Your task to perform on an android device: turn off smart reply in the gmail app Image 0: 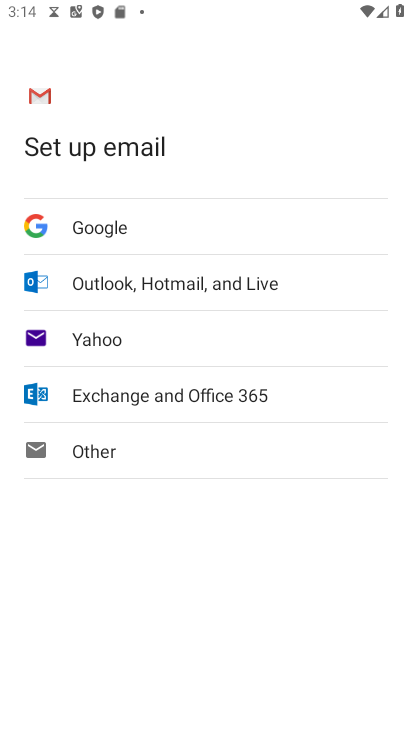
Step 0: click (280, 563)
Your task to perform on an android device: turn off smart reply in the gmail app Image 1: 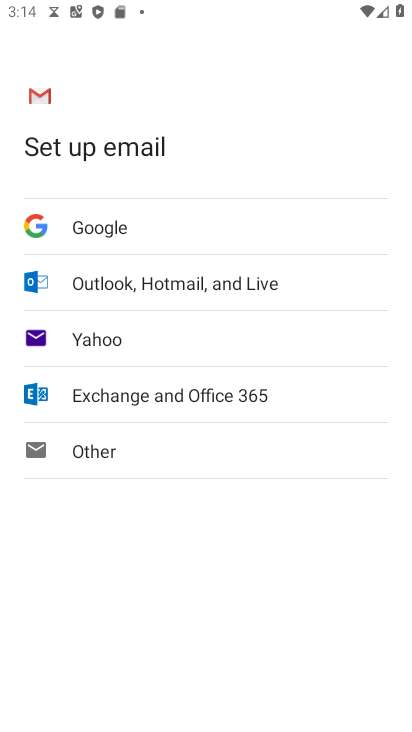
Step 1: press home button
Your task to perform on an android device: turn off smart reply in the gmail app Image 2: 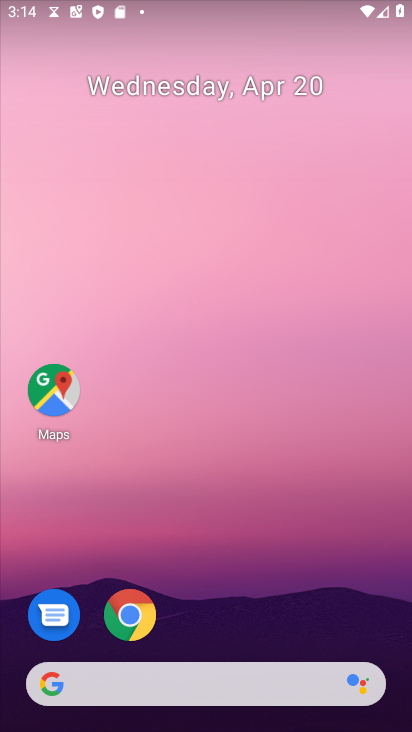
Step 2: drag from (206, 632) to (242, 231)
Your task to perform on an android device: turn off smart reply in the gmail app Image 3: 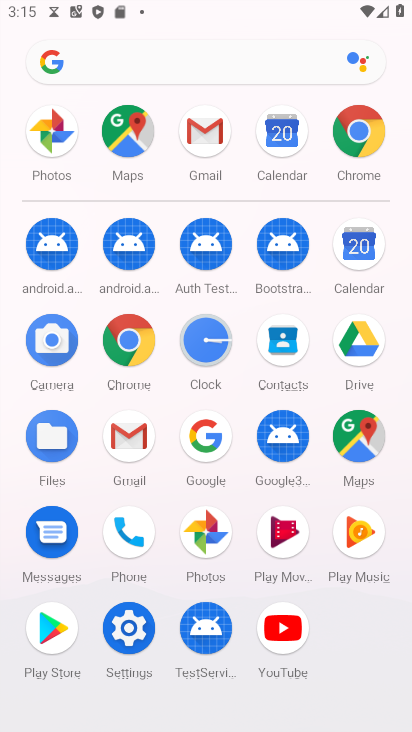
Step 3: click (128, 417)
Your task to perform on an android device: turn off smart reply in the gmail app Image 4: 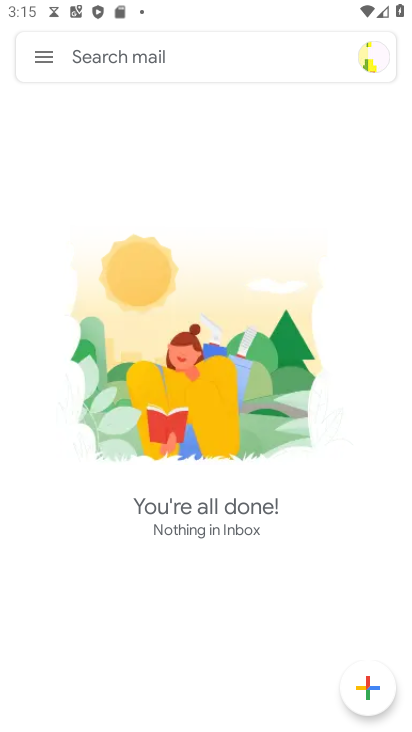
Step 4: click (36, 59)
Your task to perform on an android device: turn off smart reply in the gmail app Image 5: 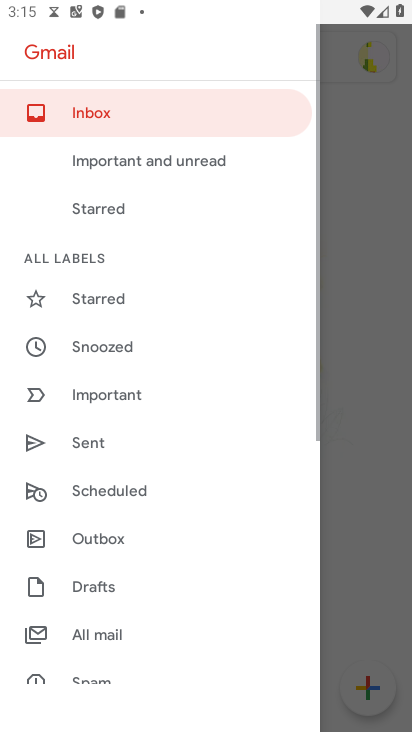
Step 5: drag from (135, 528) to (233, 3)
Your task to perform on an android device: turn off smart reply in the gmail app Image 6: 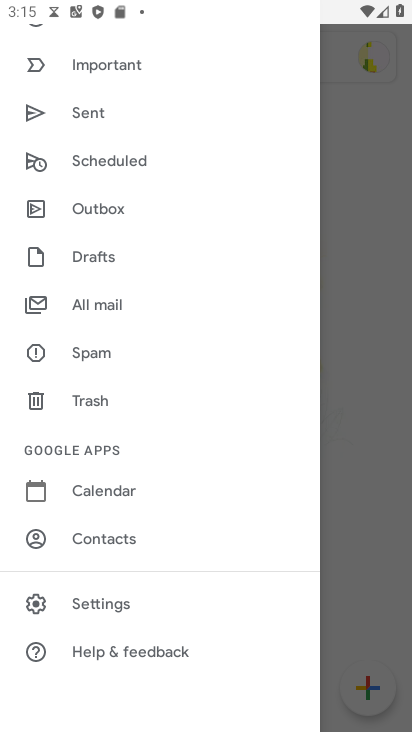
Step 6: click (108, 598)
Your task to perform on an android device: turn off smart reply in the gmail app Image 7: 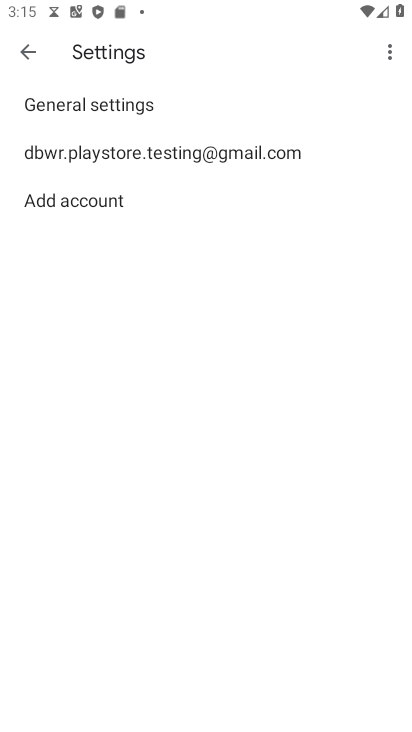
Step 7: click (186, 153)
Your task to perform on an android device: turn off smart reply in the gmail app Image 8: 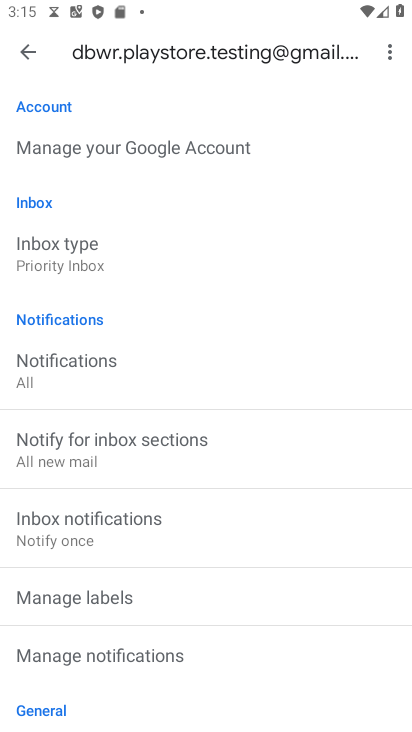
Step 8: drag from (211, 390) to (339, 86)
Your task to perform on an android device: turn off smart reply in the gmail app Image 9: 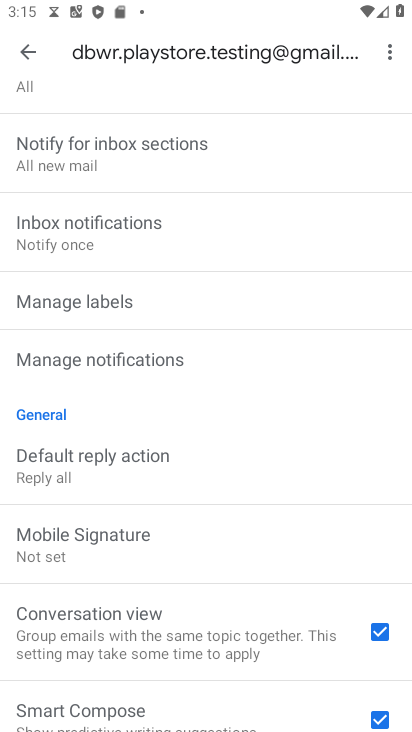
Step 9: drag from (234, 572) to (265, 262)
Your task to perform on an android device: turn off smart reply in the gmail app Image 10: 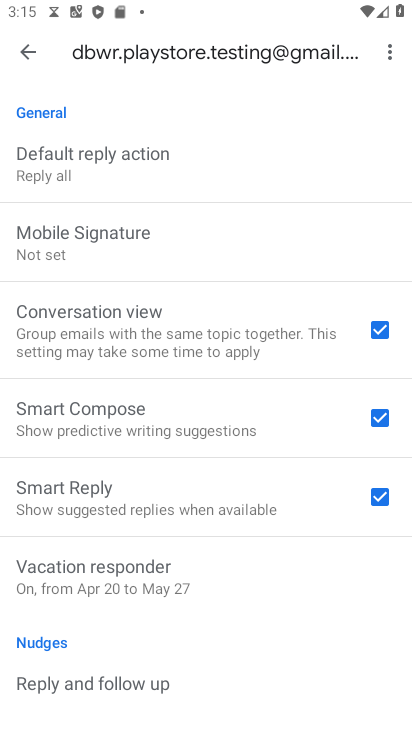
Step 10: click (235, 490)
Your task to perform on an android device: turn off smart reply in the gmail app Image 11: 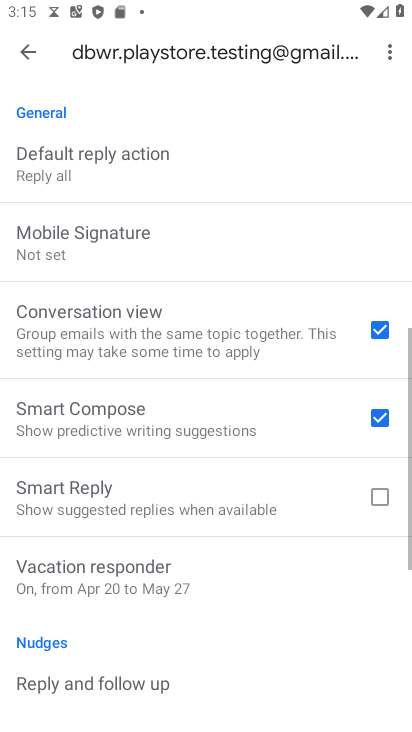
Step 11: task complete